Your task to perform on an android device: Show the shopping cart on target. Add "razer blade" to the cart on target, then select checkout. Image 0: 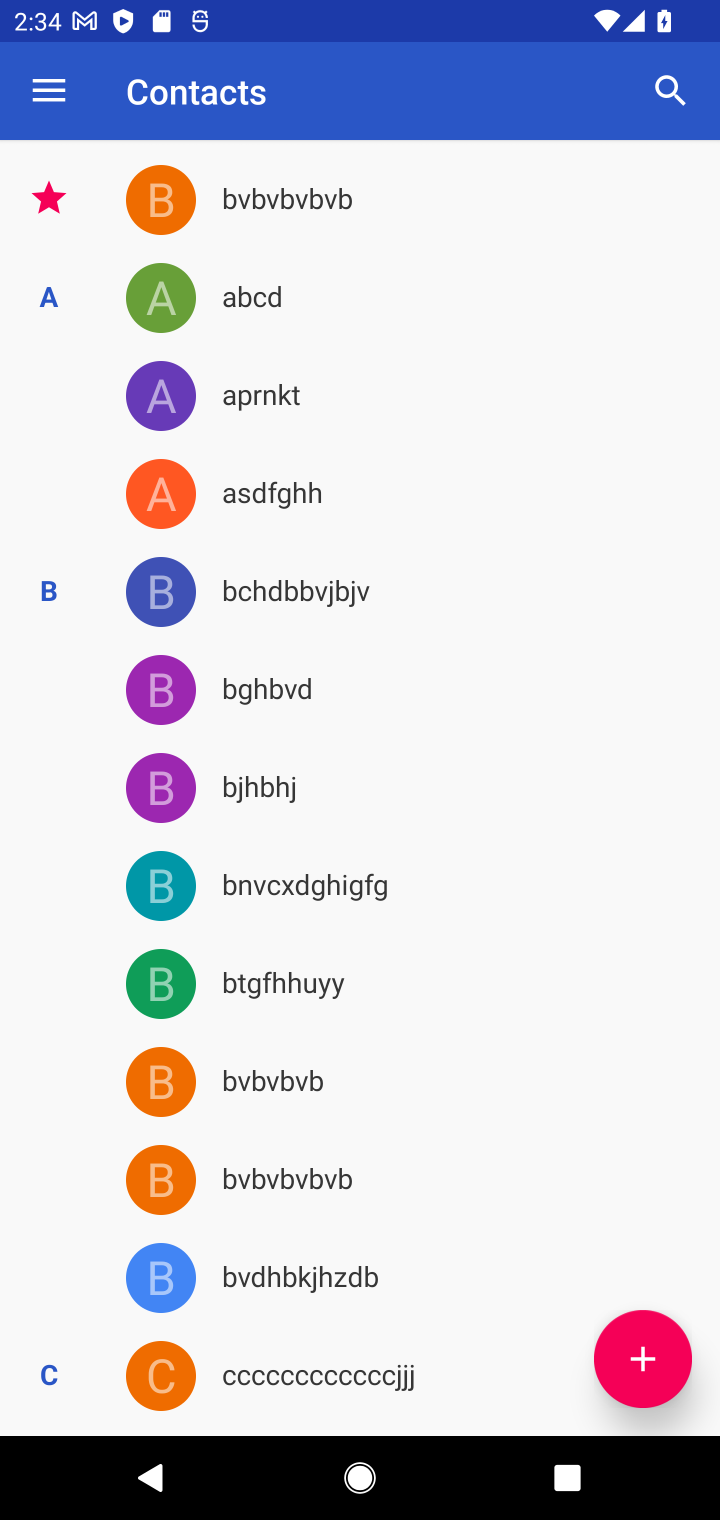
Step 0: press home button
Your task to perform on an android device: Show the shopping cart on target. Add "razer blade" to the cart on target, then select checkout. Image 1: 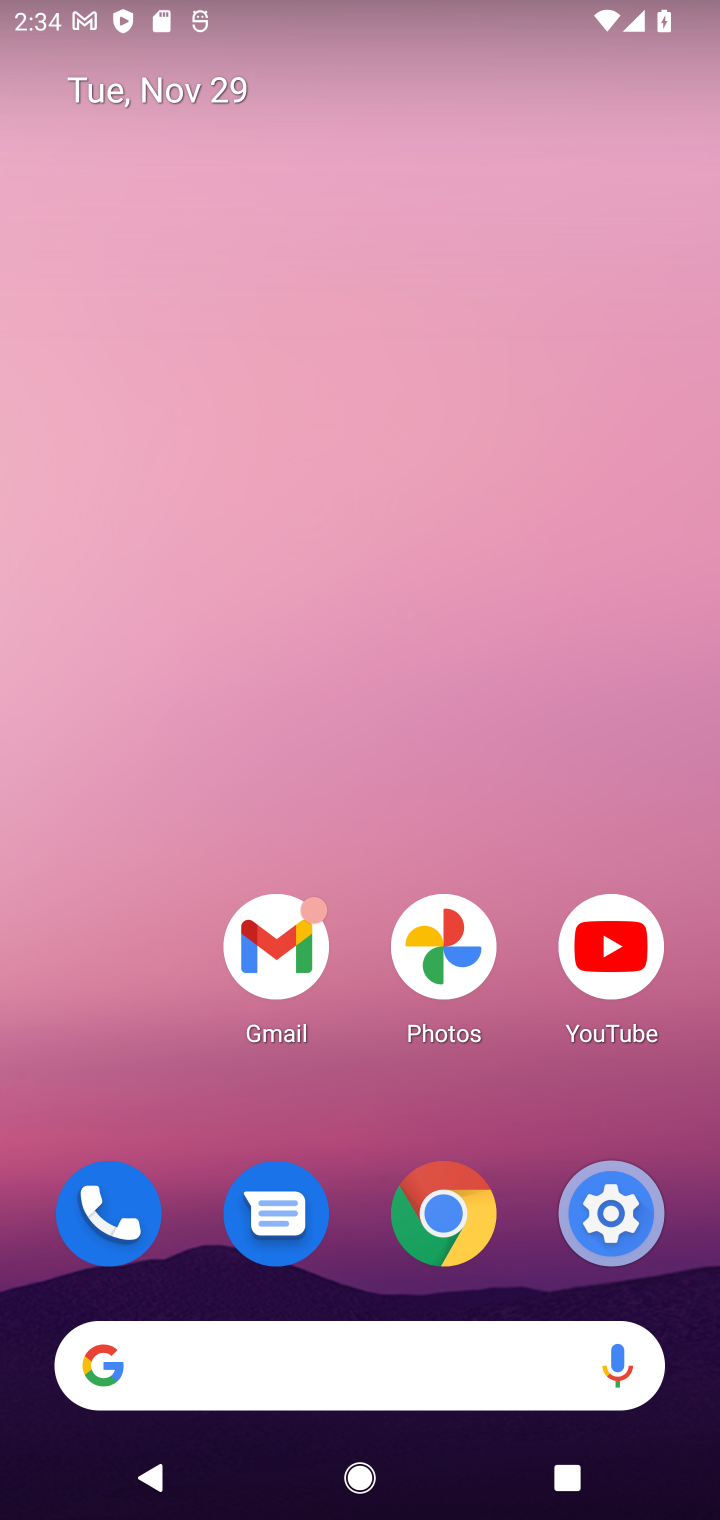
Step 1: drag from (386, 602) to (405, 499)
Your task to perform on an android device: Show the shopping cart on target. Add "razer blade" to the cart on target, then select checkout. Image 2: 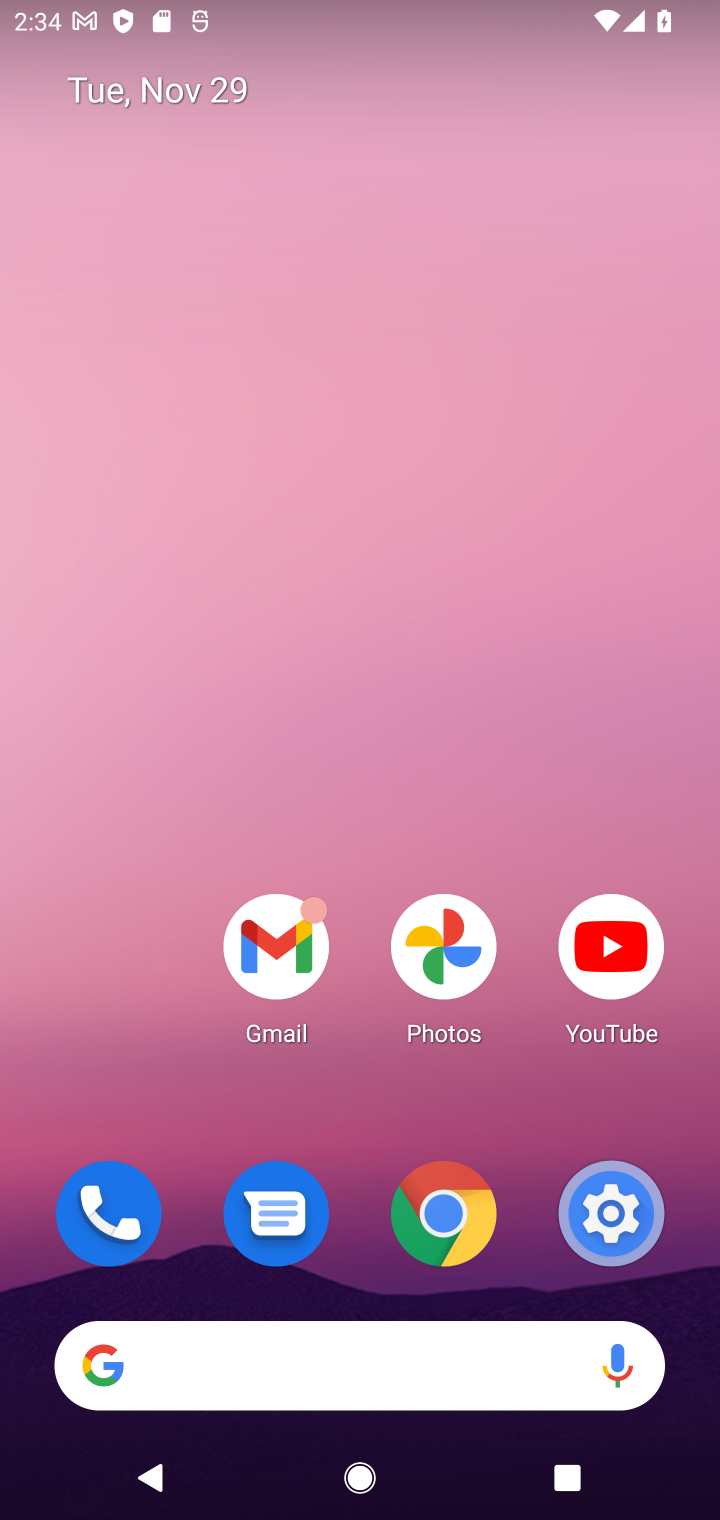
Step 2: click (315, 1358)
Your task to perform on an android device: Show the shopping cart on target. Add "razer blade" to the cart on target, then select checkout. Image 3: 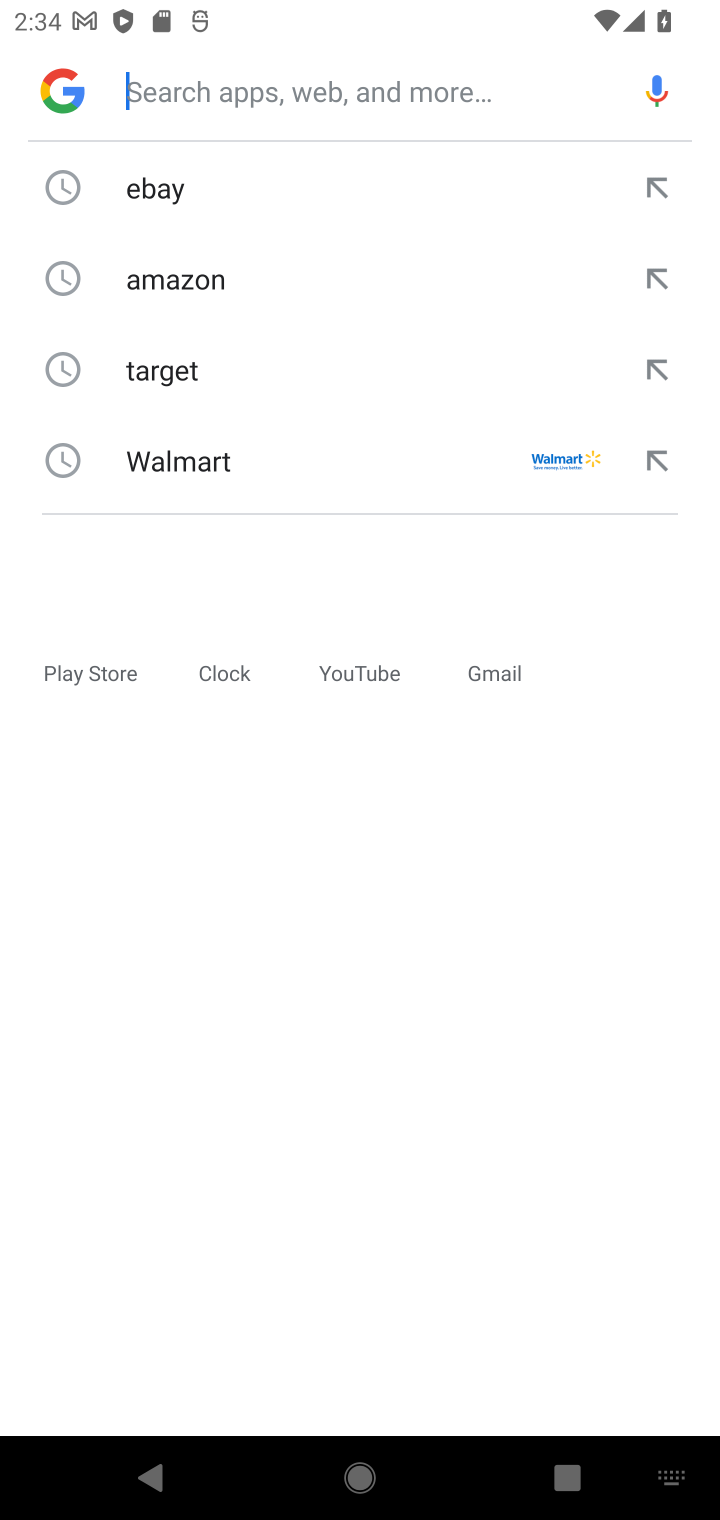
Step 3: click (188, 364)
Your task to perform on an android device: Show the shopping cart on target. Add "razer blade" to the cart on target, then select checkout. Image 4: 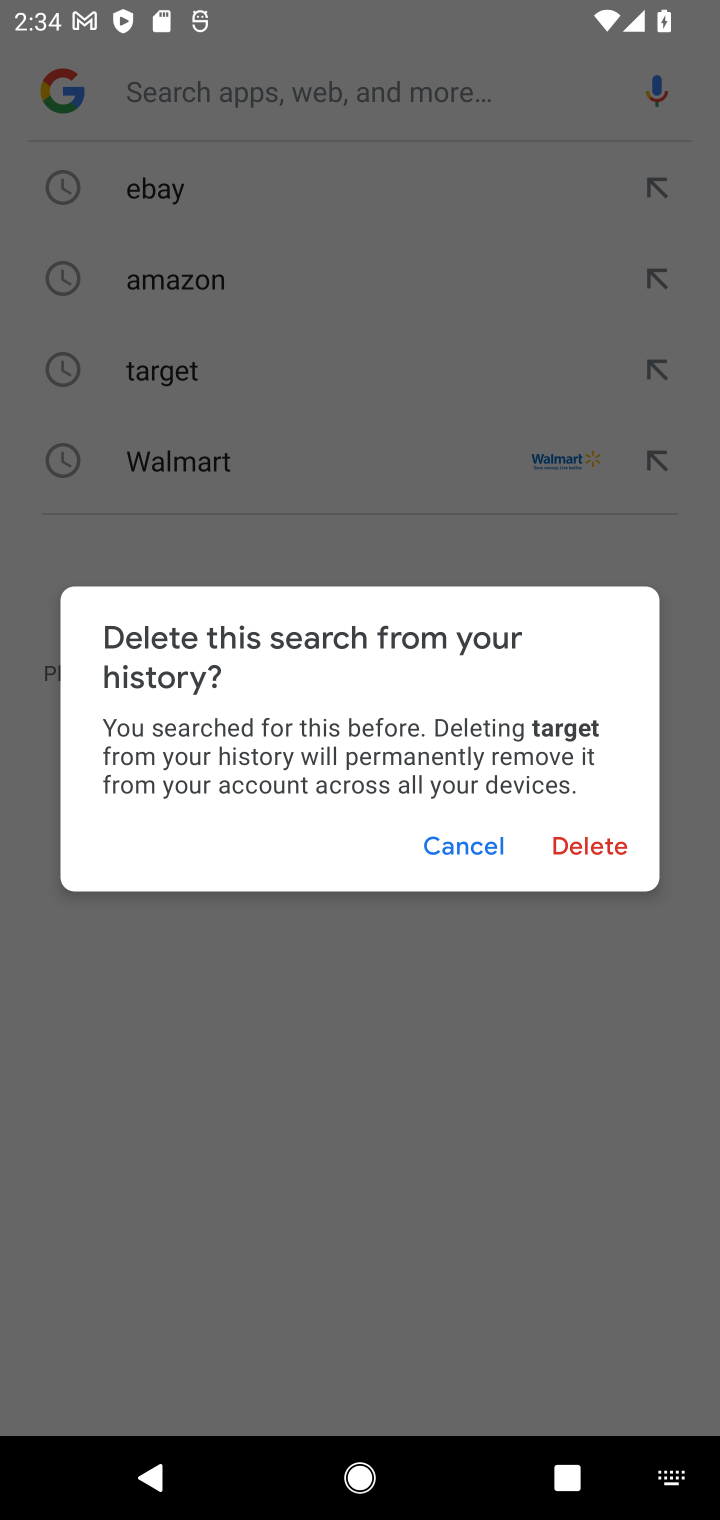
Step 4: click (483, 843)
Your task to perform on an android device: Show the shopping cart on target. Add "razer blade" to the cart on target, then select checkout. Image 5: 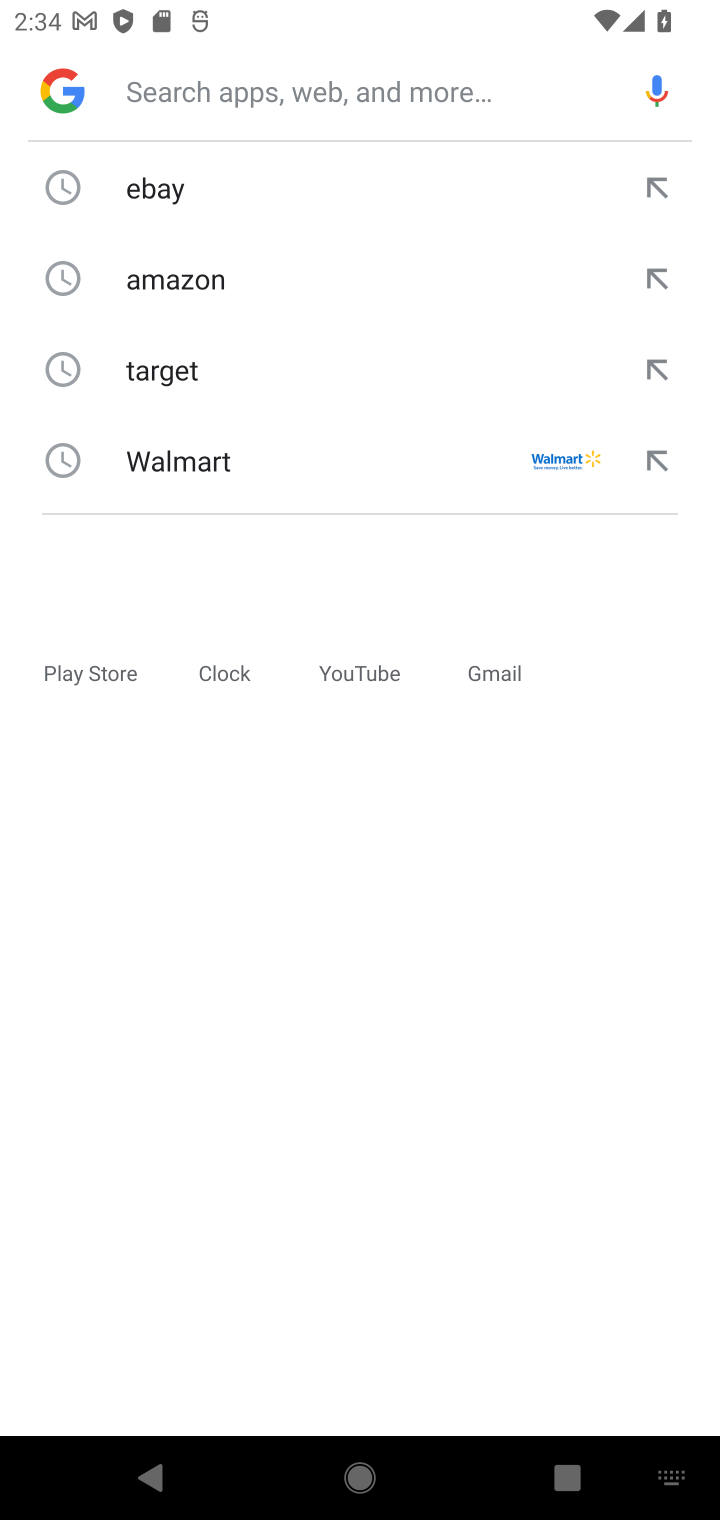
Step 5: click (178, 381)
Your task to perform on an android device: Show the shopping cart on target. Add "razer blade" to the cart on target, then select checkout. Image 6: 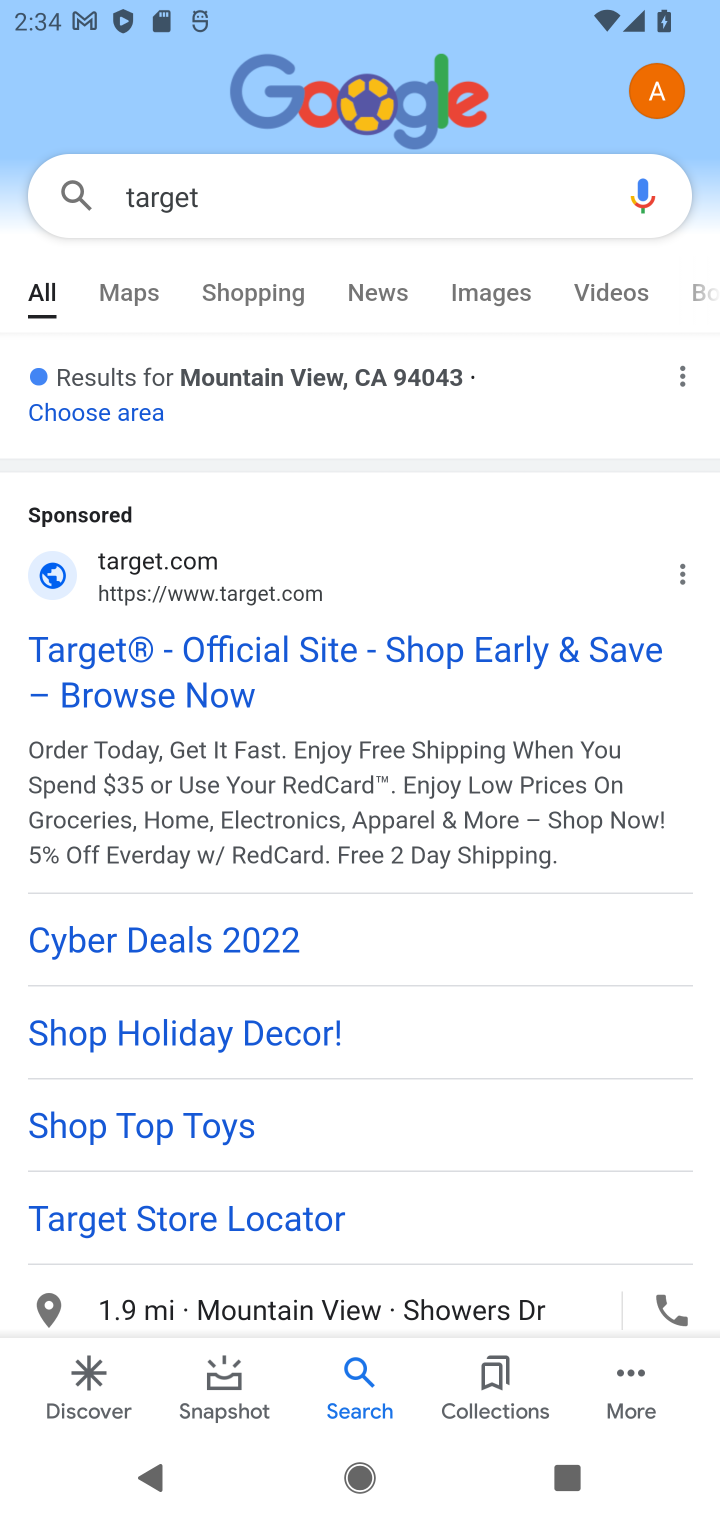
Step 6: drag from (179, 1196) to (251, 437)
Your task to perform on an android device: Show the shopping cart on target. Add "razer blade" to the cart on target, then select checkout. Image 7: 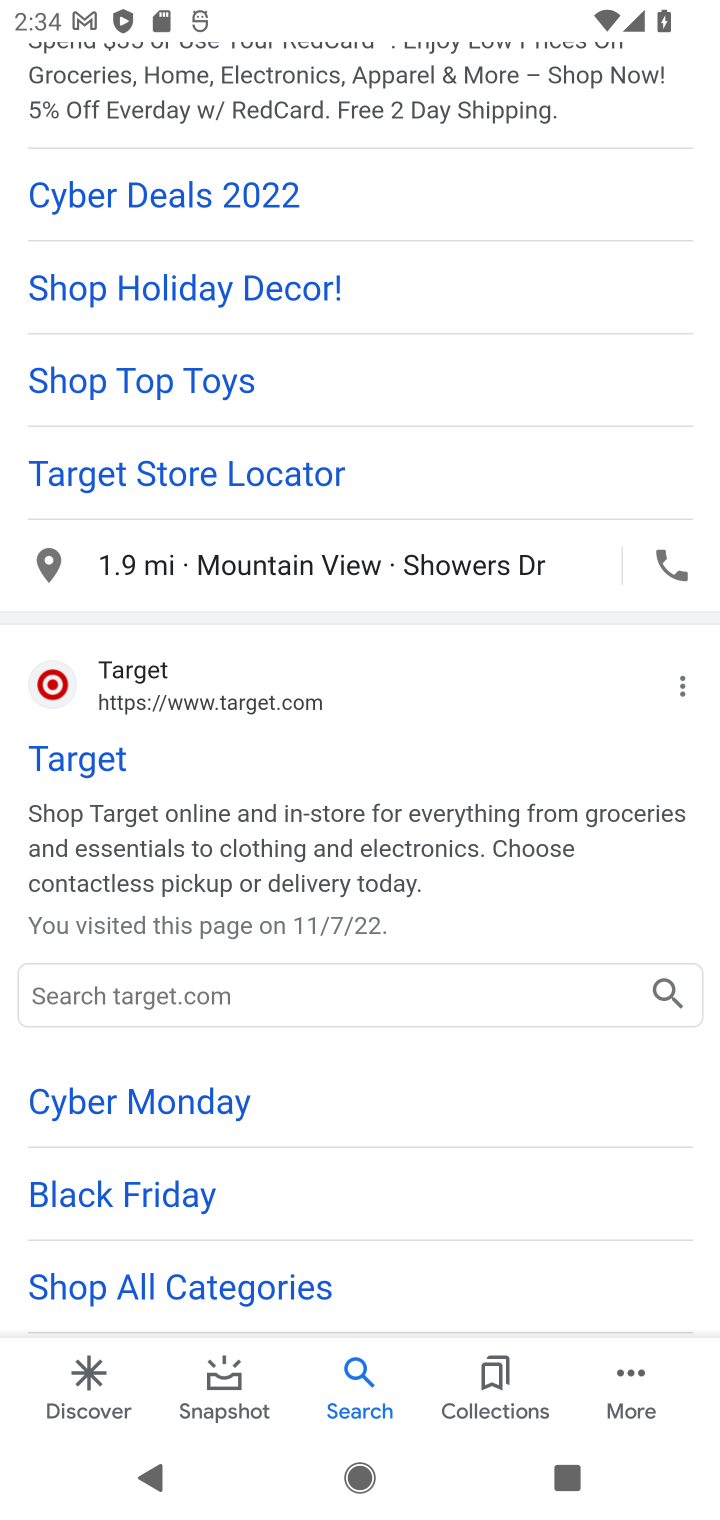
Step 7: click (127, 681)
Your task to perform on an android device: Show the shopping cart on target. Add "razer blade" to the cart on target, then select checkout. Image 8: 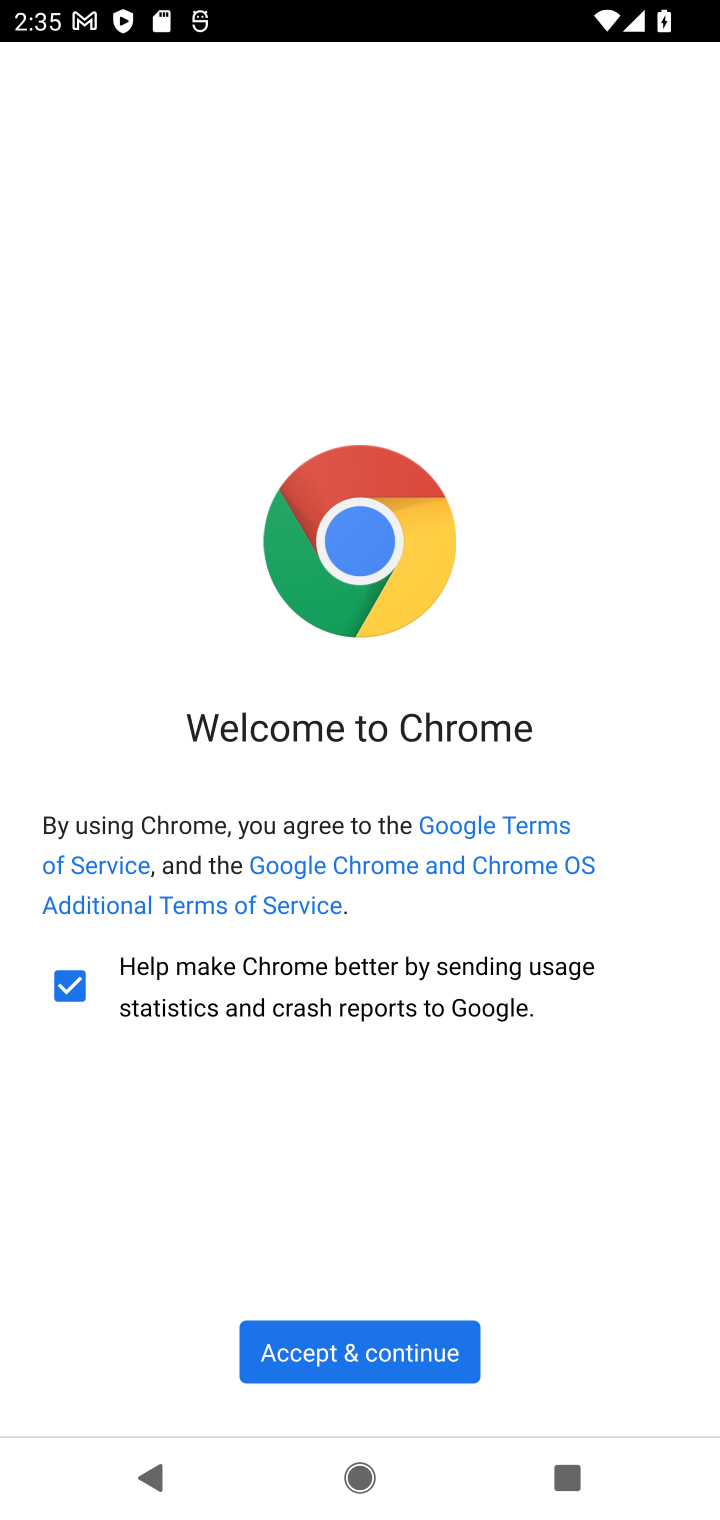
Step 8: click (323, 1361)
Your task to perform on an android device: Show the shopping cart on target. Add "razer blade" to the cart on target, then select checkout. Image 9: 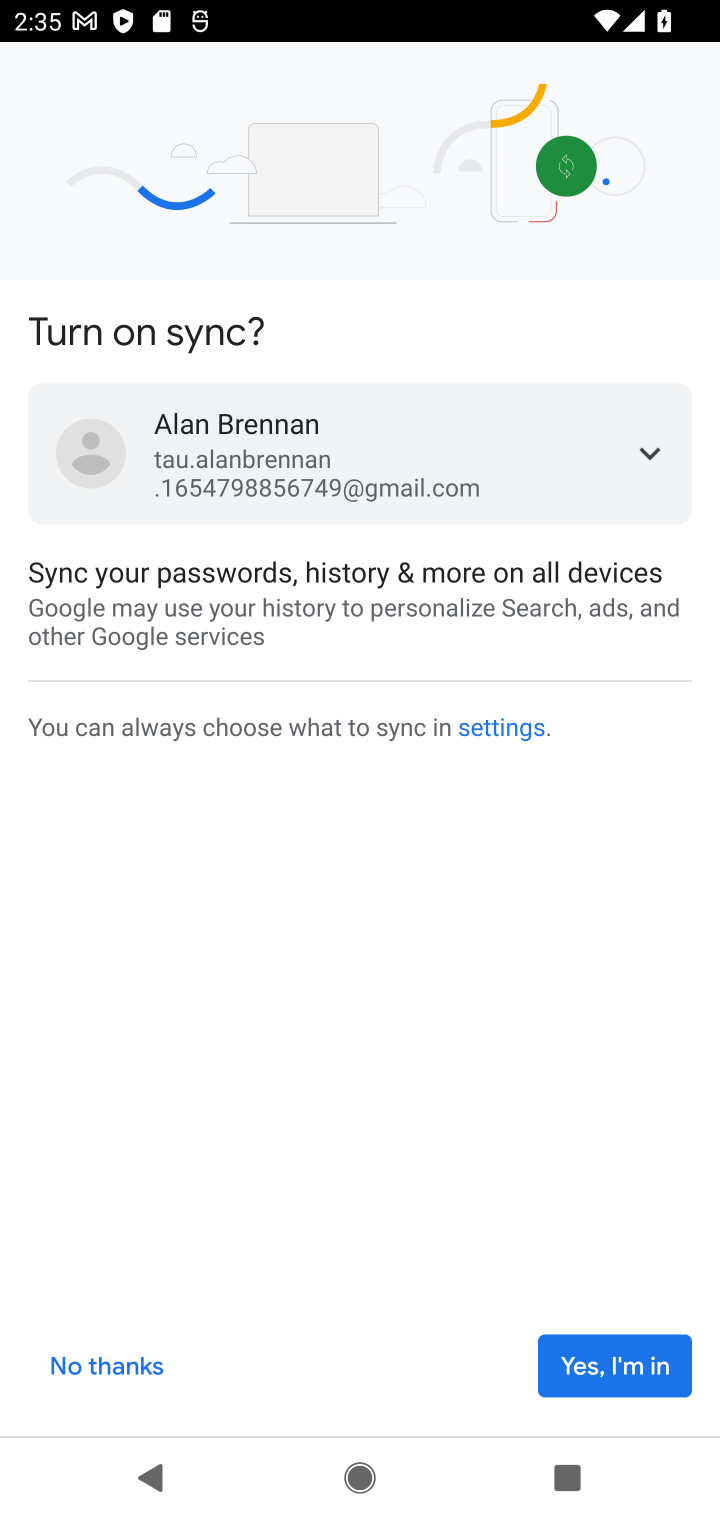
Step 9: click (619, 1377)
Your task to perform on an android device: Show the shopping cart on target. Add "razer blade" to the cart on target, then select checkout. Image 10: 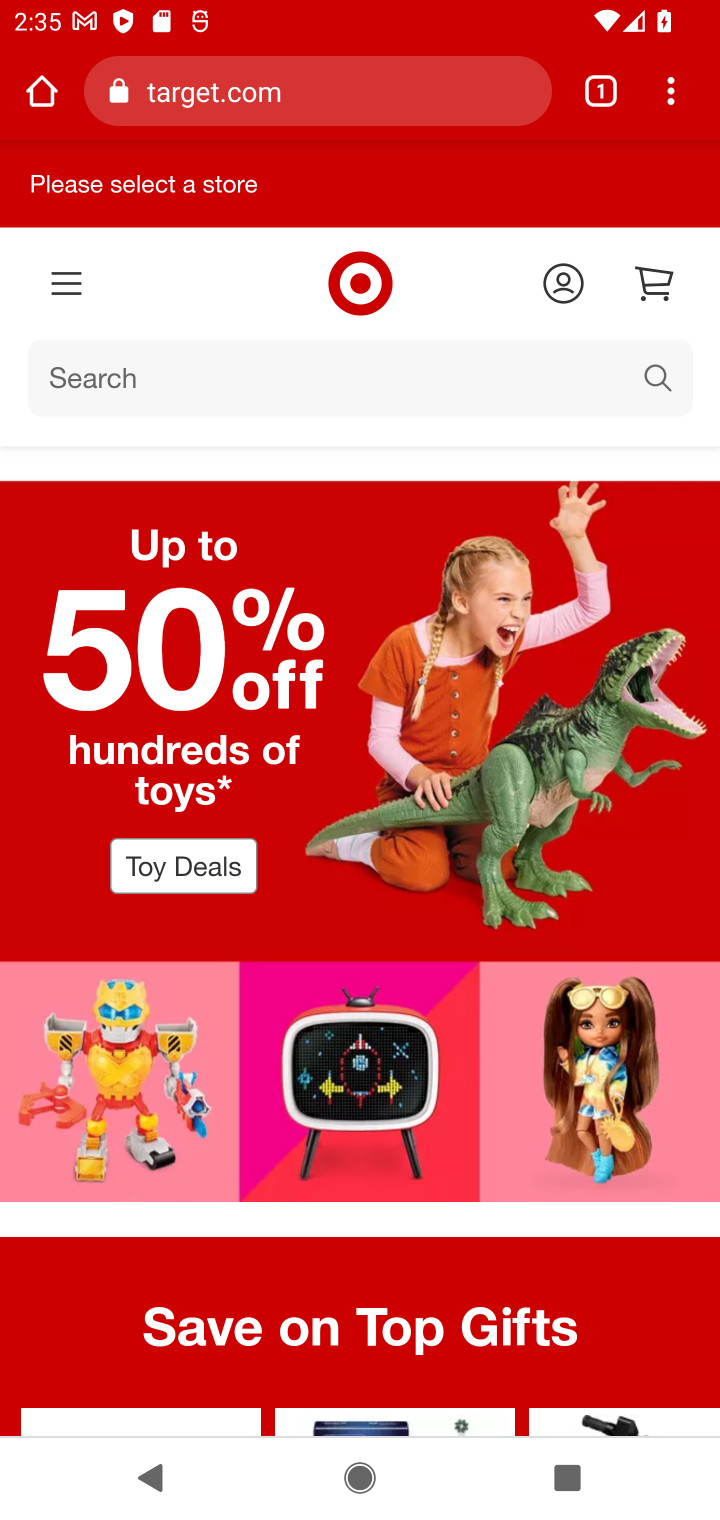
Step 10: click (433, 367)
Your task to perform on an android device: Show the shopping cart on target. Add "razer blade" to the cart on target, then select checkout. Image 11: 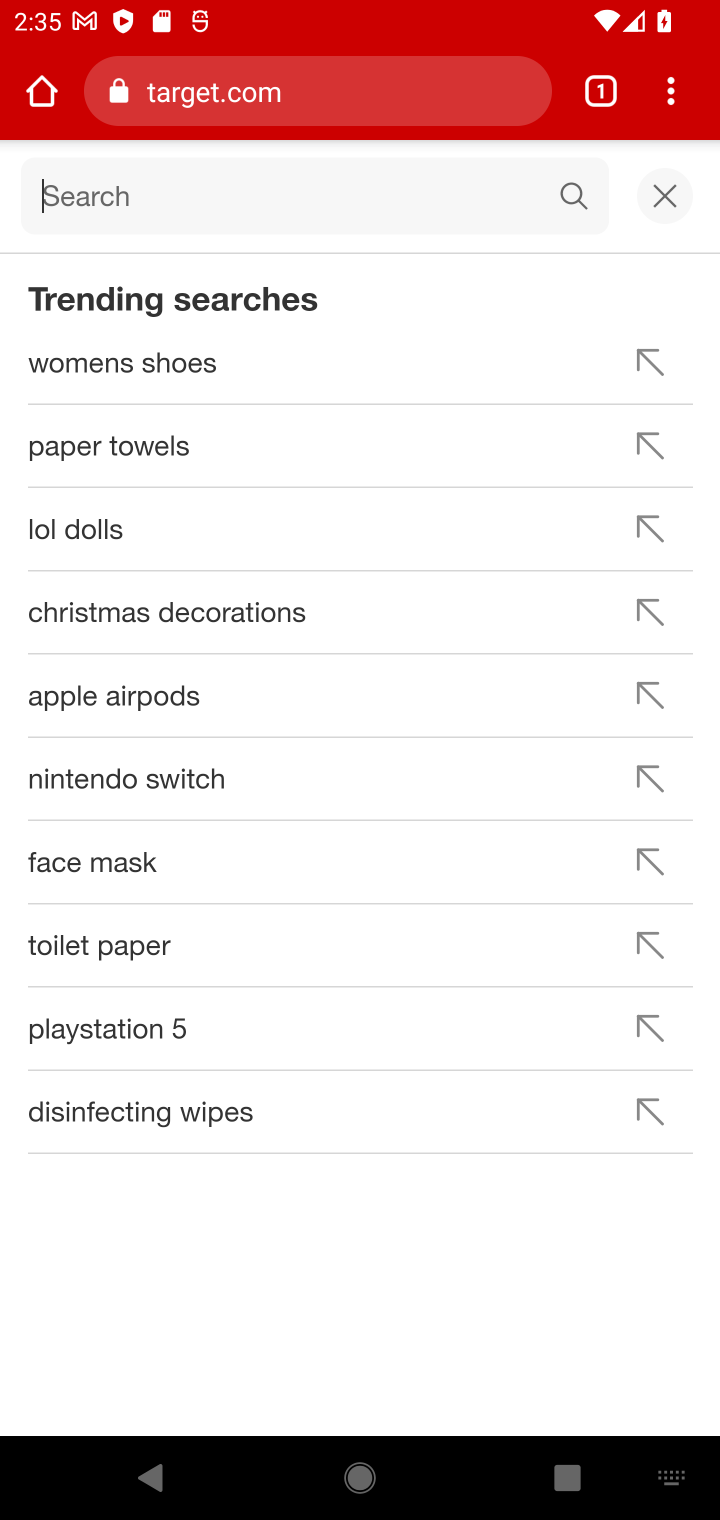
Step 11: type "razer blade"
Your task to perform on an android device: Show the shopping cart on target. Add "razer blade" to the cart on target, then select checkout. Image 12: 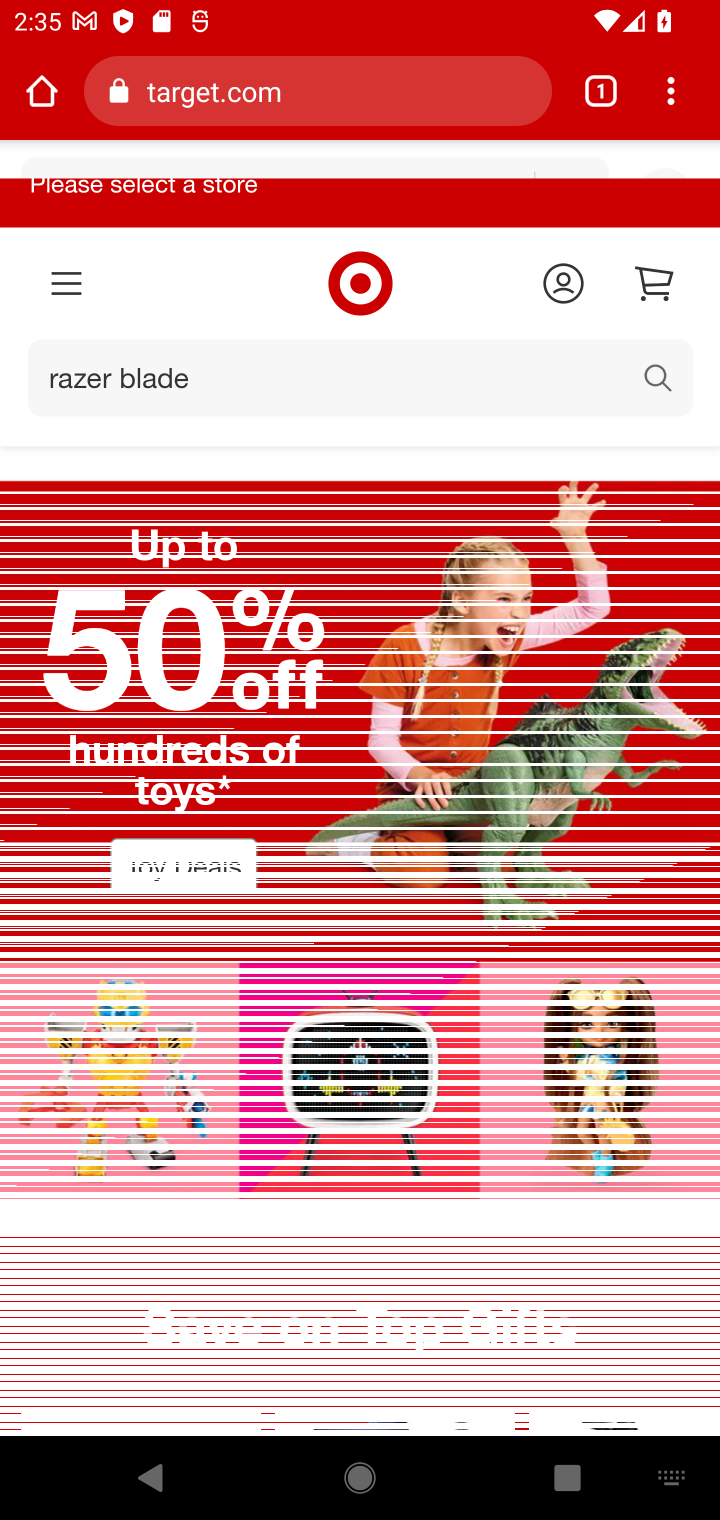
Step 12: click (142, 297)
Your task to perform on an android device: Show the shopping cart on target. Add "razer blade" to the cart on target, then select checkout. Image 13: 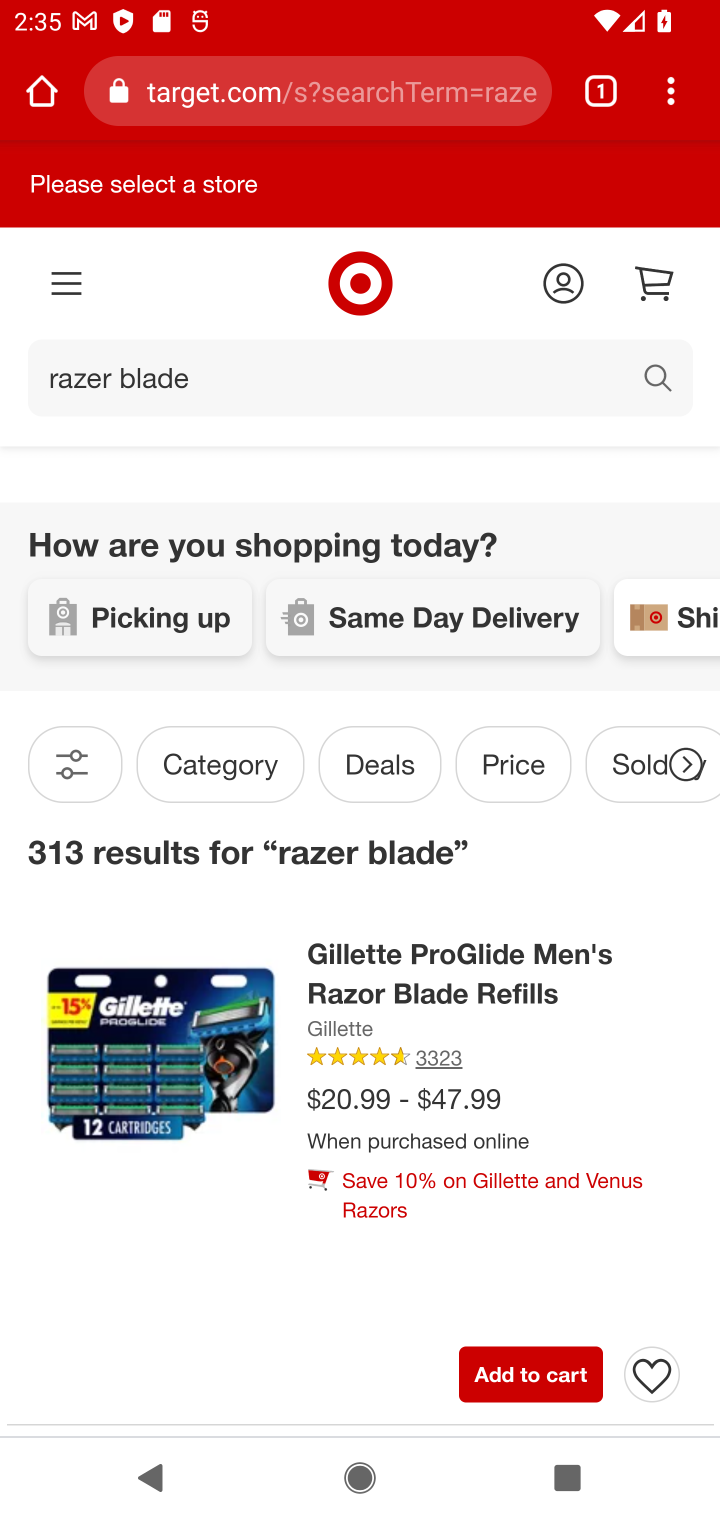
Step 13: drag from (344, 1295) to (351, 1173)
Your task to perform on an android device: Show the shopping cart on target. Add "razer blade" to the cart on target, then select checkout. Image 14: 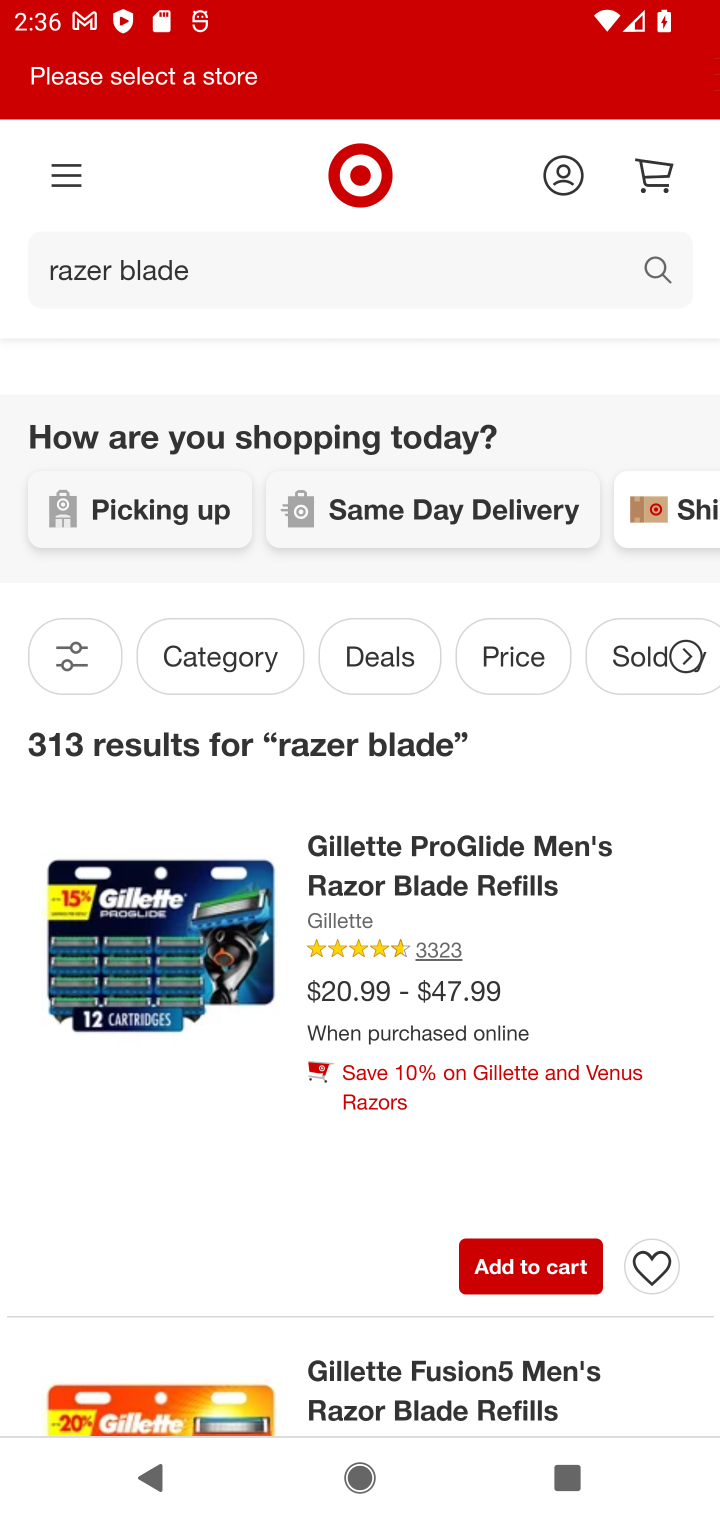
Step 14: click (391, 844)
Your task to perform on an android device: Show the shopping cart on target. Add "razer blade" to the cart on target, then select checkout. Image 15: 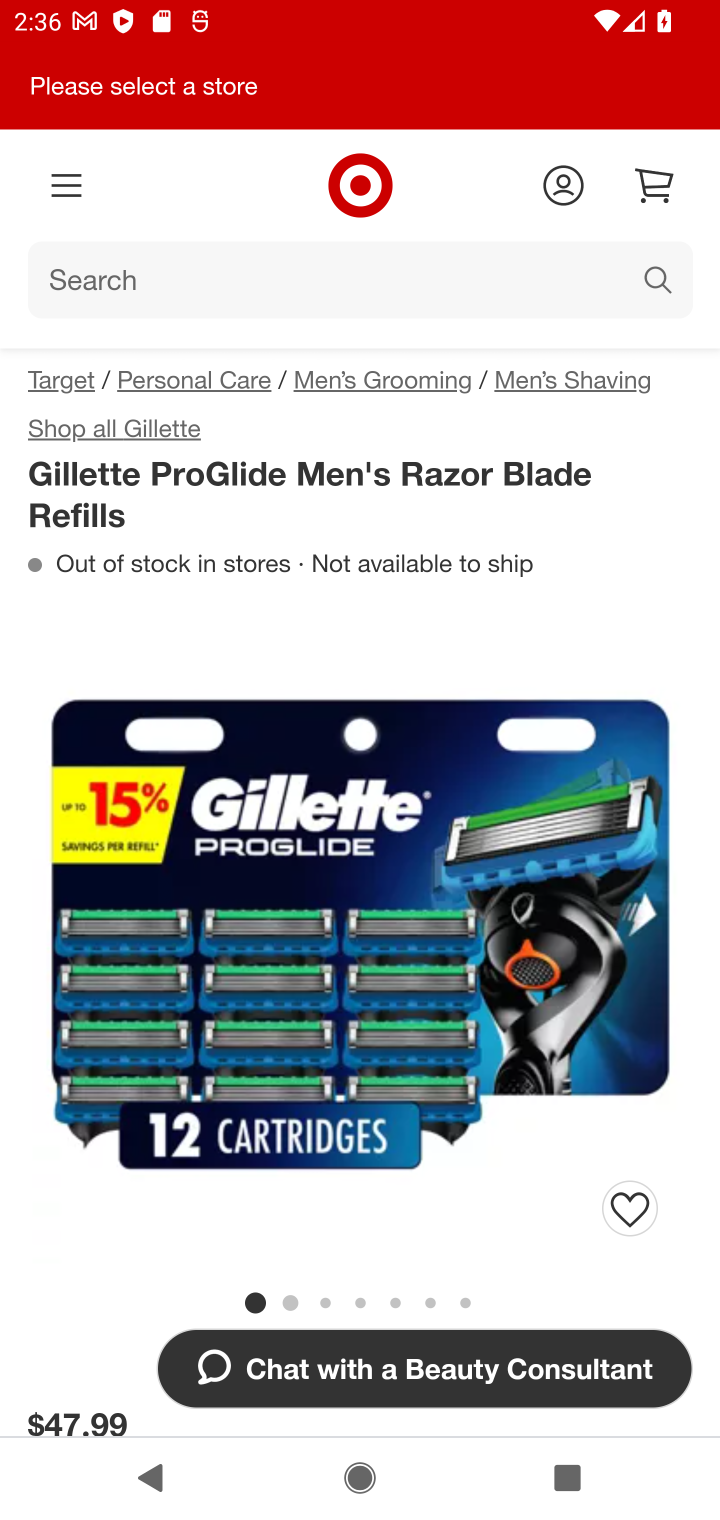
Step 15: drag from (394, 728) to (394, 411)
Your task to perform on an android device: Show the shopping cart on target. Add "razer blade" to the cart on target, then select checkout. Image 16: 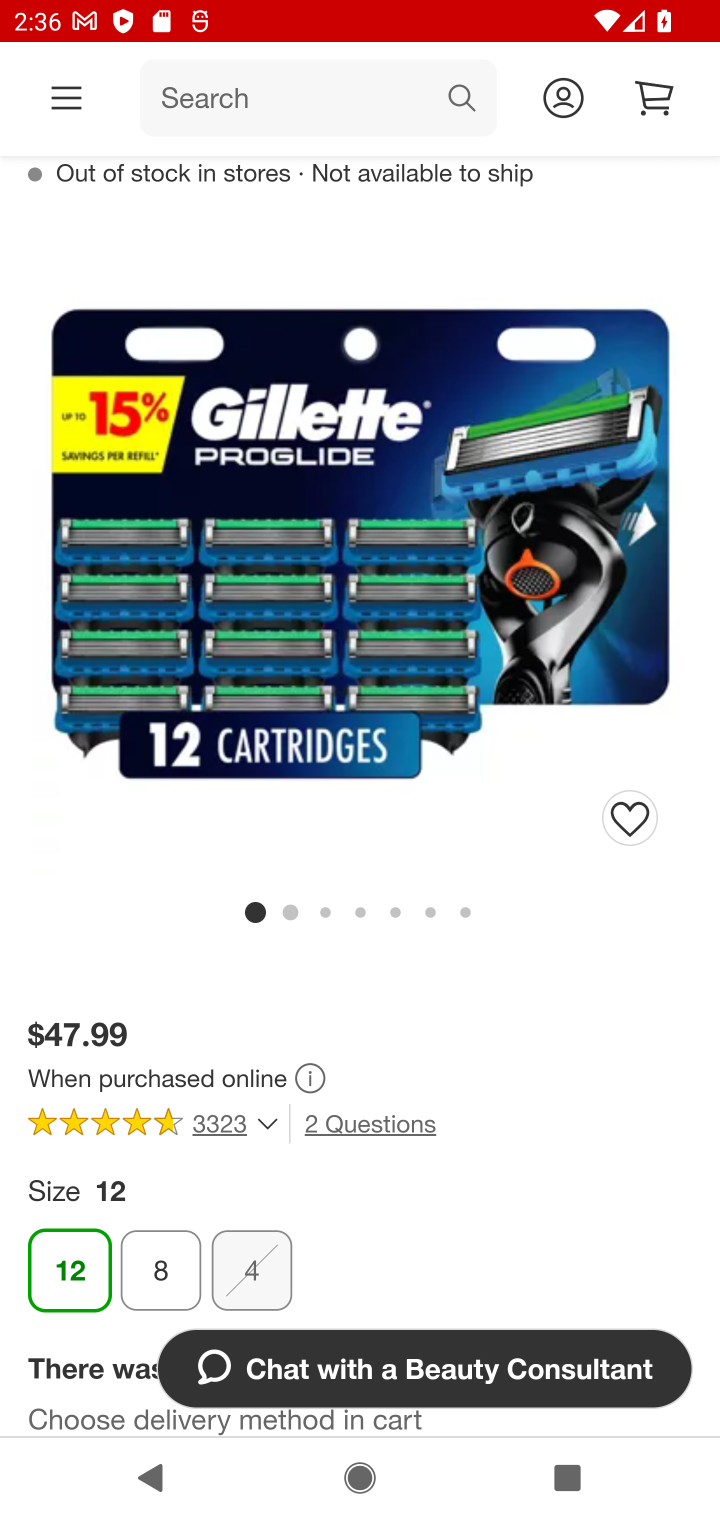
Step 16: click (462, 723)
Your task to perform on an android device: Show the shopping cart on target. Add "razer blade" to the cart on target, then select checkout. Image 17: 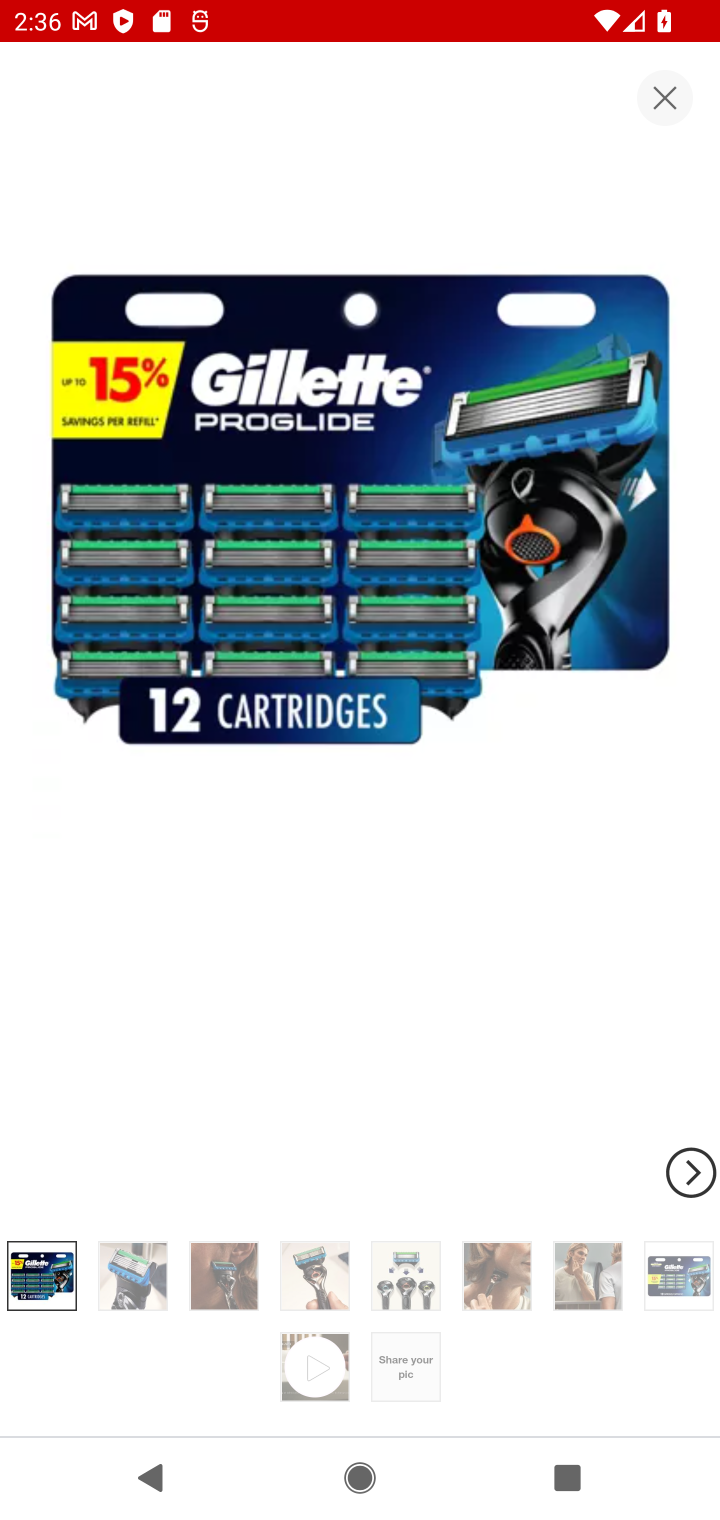
Step 17: click (658, 79)
Your task to perform on an android device: Show the shopping cart on target. Add "razer blade" to the cart on target, then select checkout. Image 18: 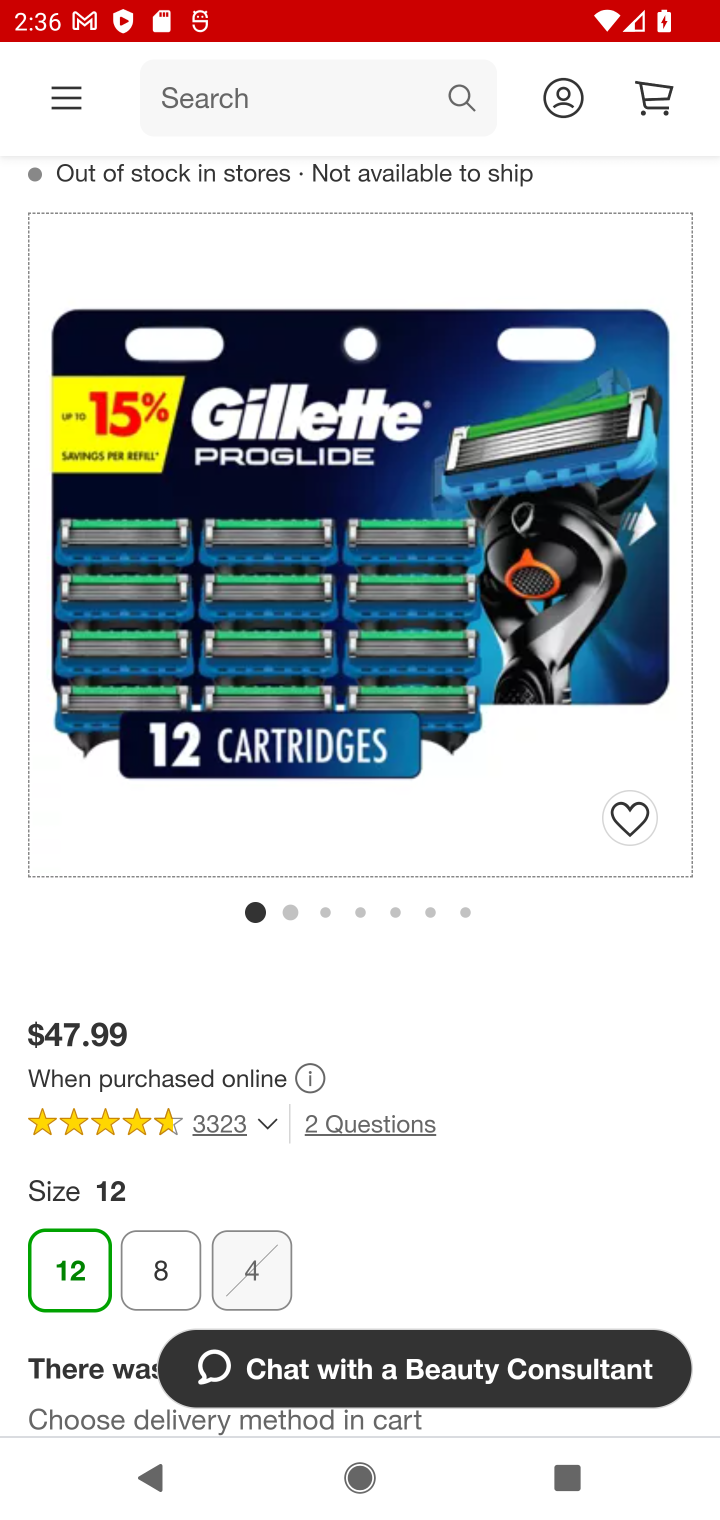
Step 18: drag from (361, 1076) to (356, 873)
Your task to perform on an android device: Show the shopping cart on target. Add "razer blade" to the cart on target, then select checkout. Image 19: 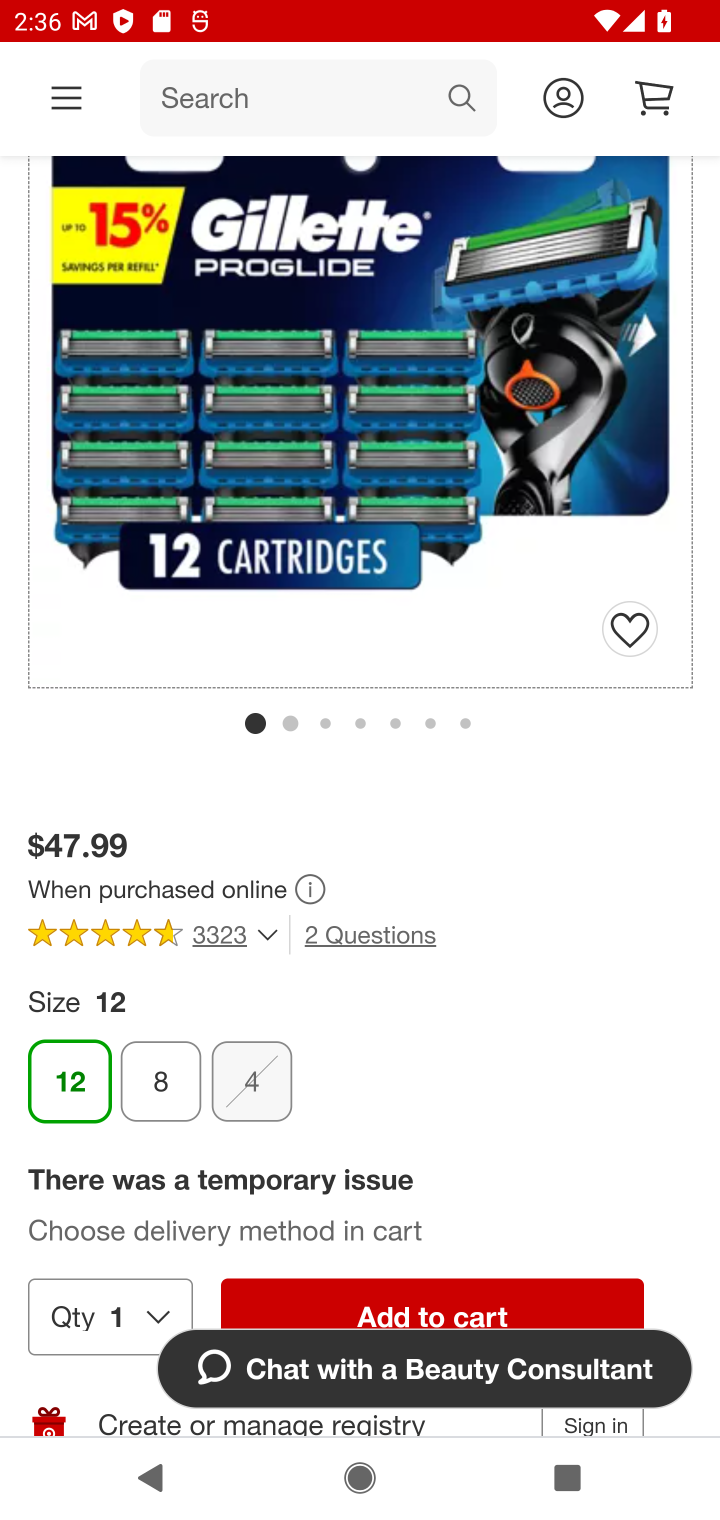
Step 19: click (346, 1302)
Your task to perform on an android device: Show the shopping cart on target. Add "razer blade" to the cart on target, then select checkout. Image 20: 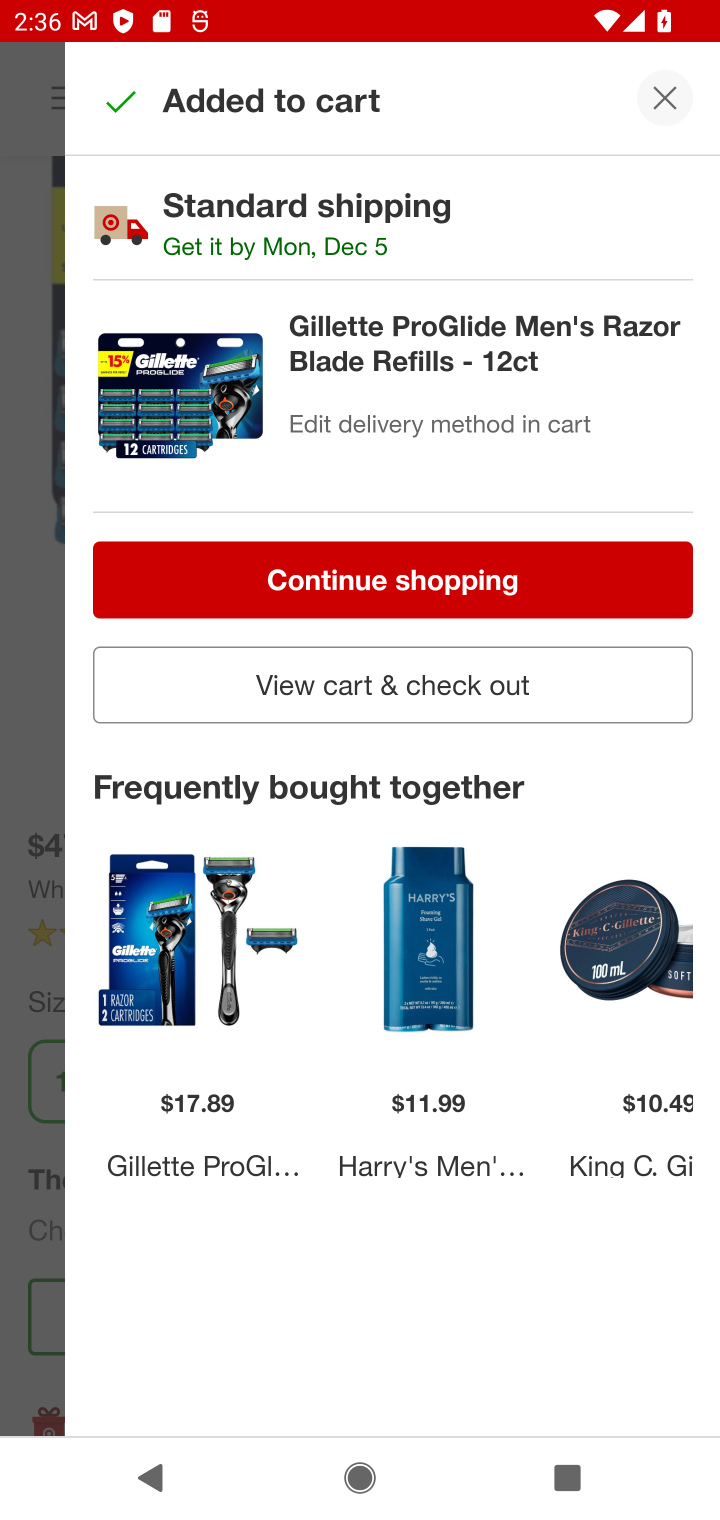
Step 20: task complete